Your task to perform on an android device: create a new album in the google photos Image 0: 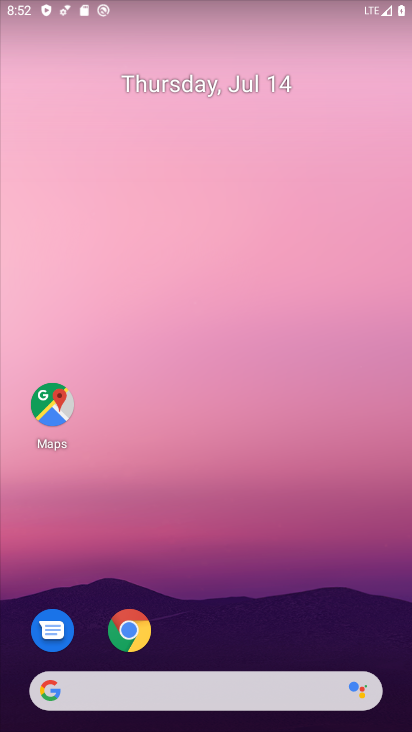
Step 0: drag from (205, 644) to (190, 31)
Your task to perform on an android device: create a new album in the google photos Image 1: 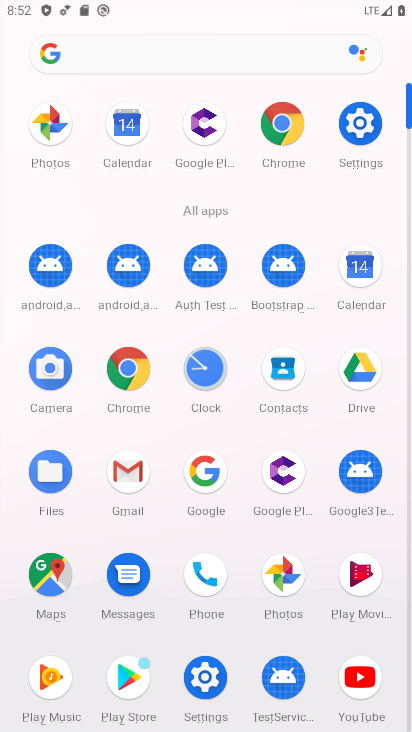
Step 1: click (280, 581)
Your task to perform on an android device: create a new album in the google photos Image 2: 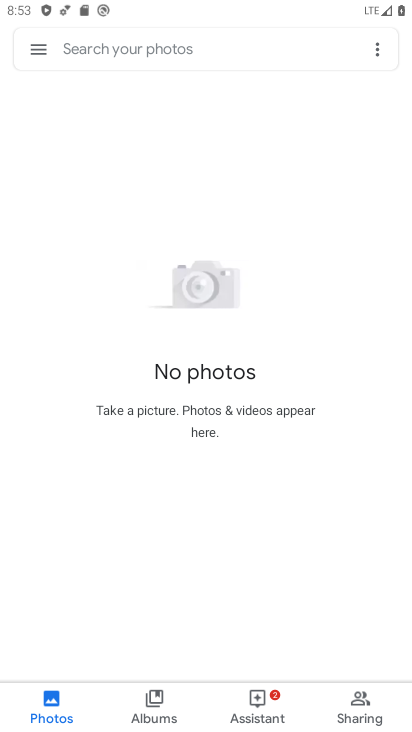
Step 2: click (169, 699)
Your task to perform on an android device: create a new album in the google photos Image 3: 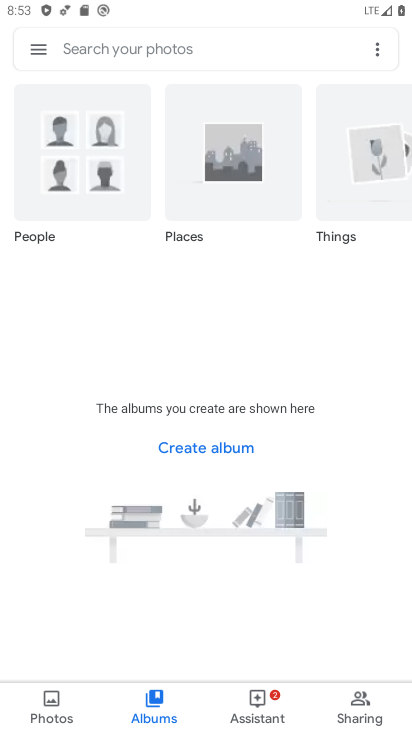
Step 3: click (185, 446)
Your task to perform on an android device: create a new album in the google photos Image 4: 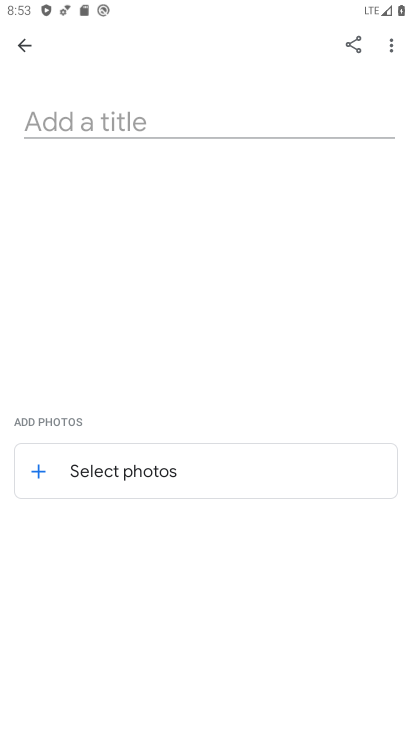
Step 4: task complete